Your task to perform on an android device: turn notification dots off Image 0: 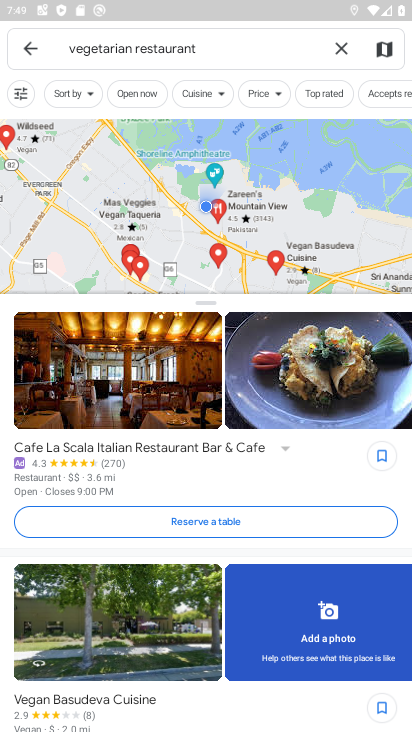
Step 0: press home button
Your task to perform on an android device: turn notification dots off Image 1: 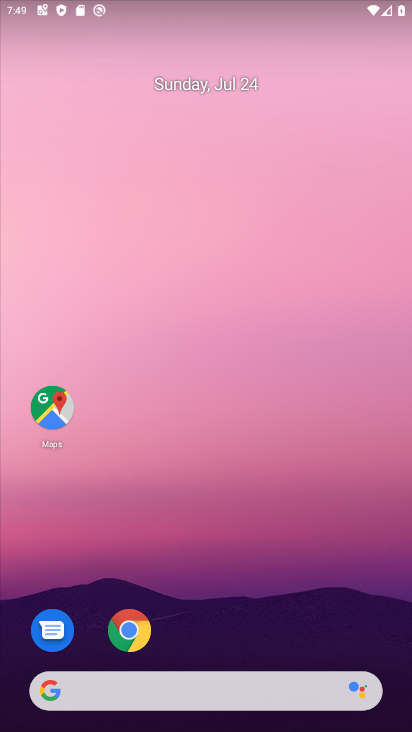
Step 1: drag from (234, 634) to (206, 90)
Your task to perform on an android device: turn notification dots off Image 2: 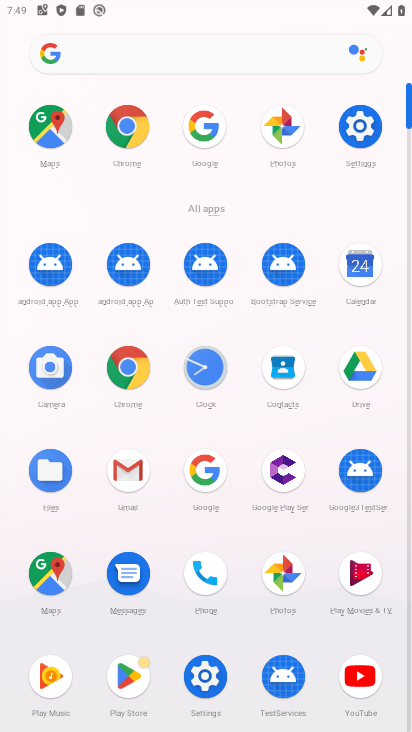
Step 2: click (376, 129)
Your task to perform on an android device: turn notification dots off Image 3: 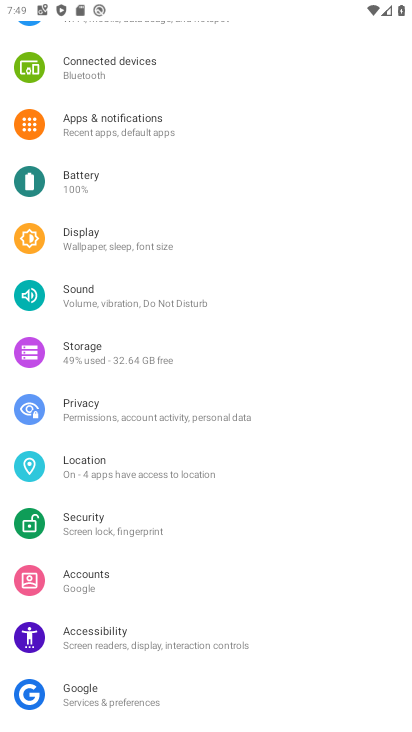
Step 3: click (163, 139)
Your task to perform on an android device: turn notification dots off Image 4: 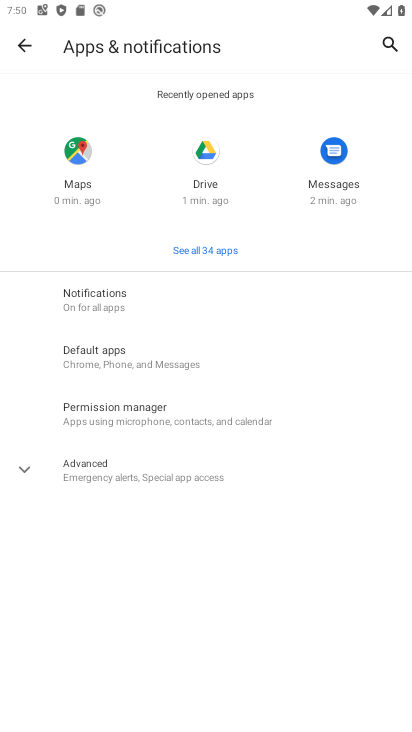
Step 4: click (107, 301)
Your task to perform on an android device: turn notification dots off Image 5: 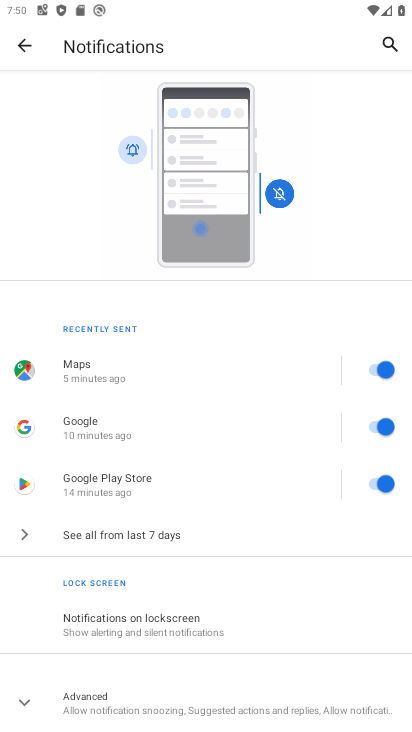
Step 5: click (162, 713)
Your task to perform on an android device: turn notification dots off Image 6: 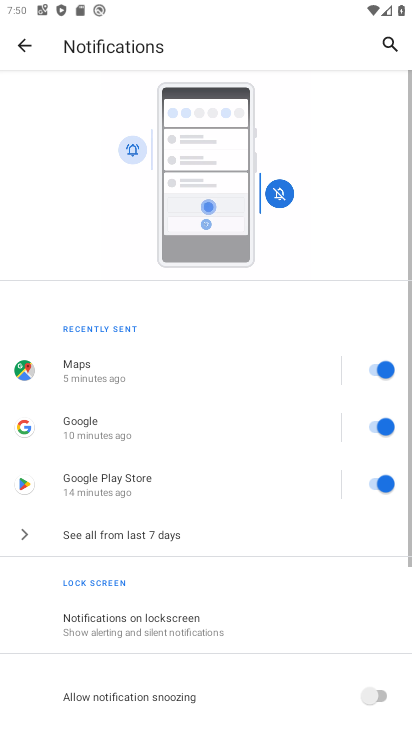
Step 6: drag from (215, 660) to (230, 346)
Your task to perform on an android device: turn notification dots off Image 7: 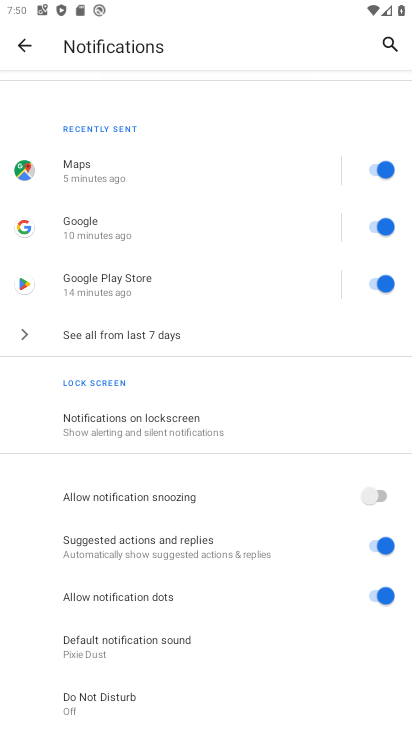
Step 7: click (361, 592)
Your task to perform on an android device: turn notification dots off Image 8: 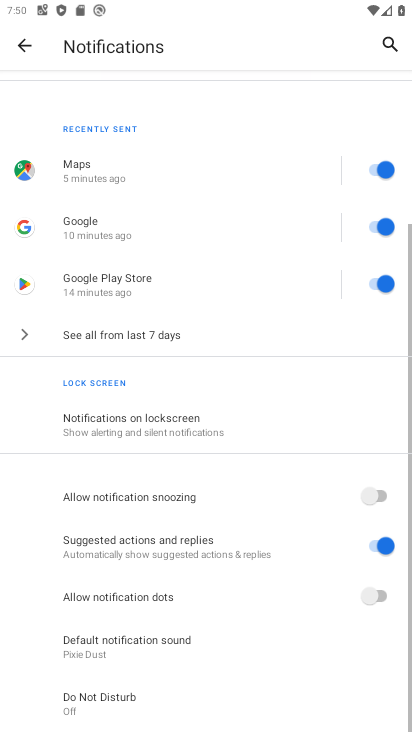
Step 8: task complete